Your task to perform on an android device: Go to ESPN.com Image 0: 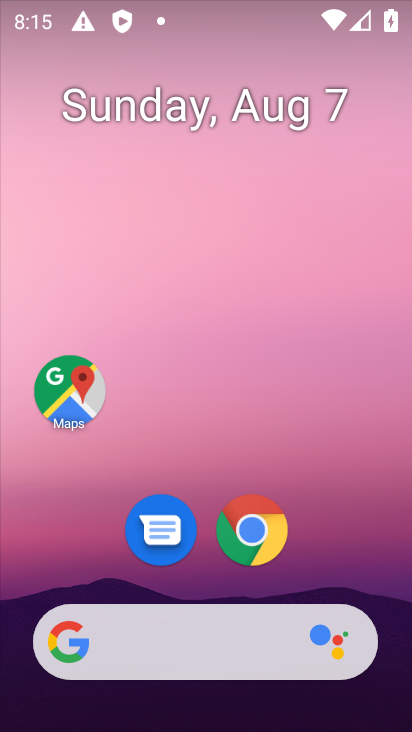
Step 0: click (280, 549)
Your task to perform on an android device: Go to ESPN.com Image 1: 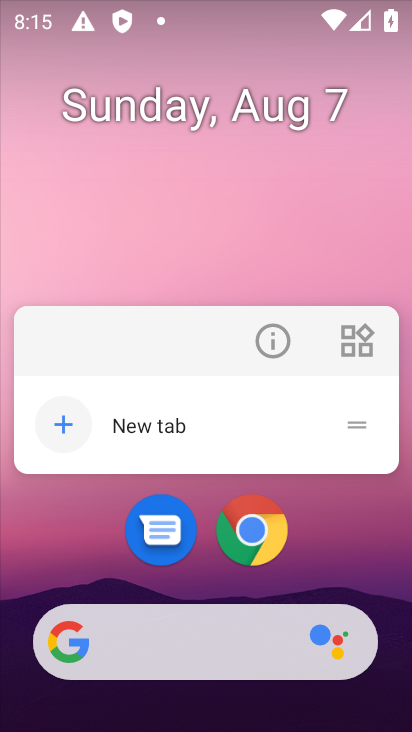
Step 1: click (267, 538)
Your task to perform on an android device: Go to ESPN.com Image 2: 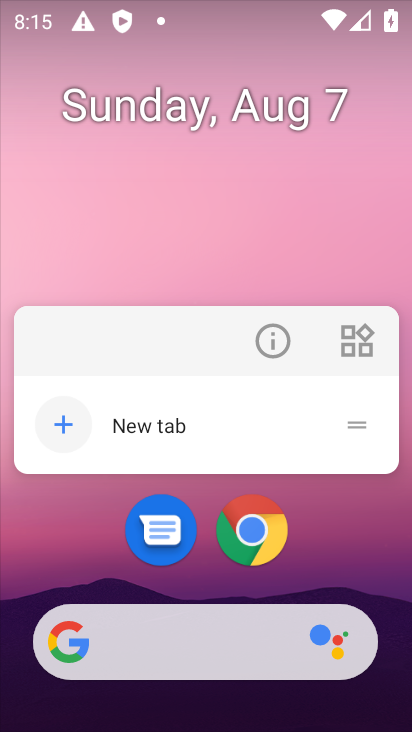
Step 2: click (267, 538)
Your task to perform on an android device: Go to ESPN.com Image 3: 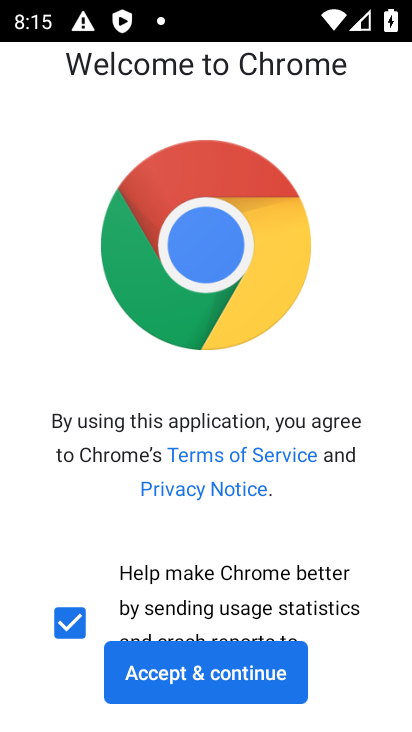
Step 3: click (201, 676)
Your task to perform on an android device: Go to ESPN.com Image 4: 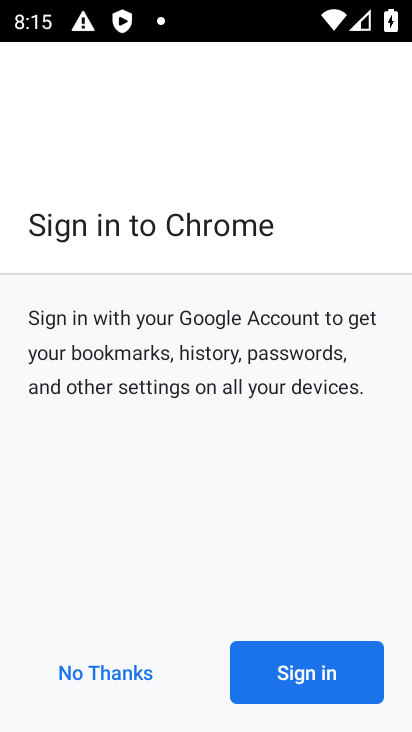
Step 4: click (93, 679)
Your task to perform on an android device: Go to ESPN.com Image 5: 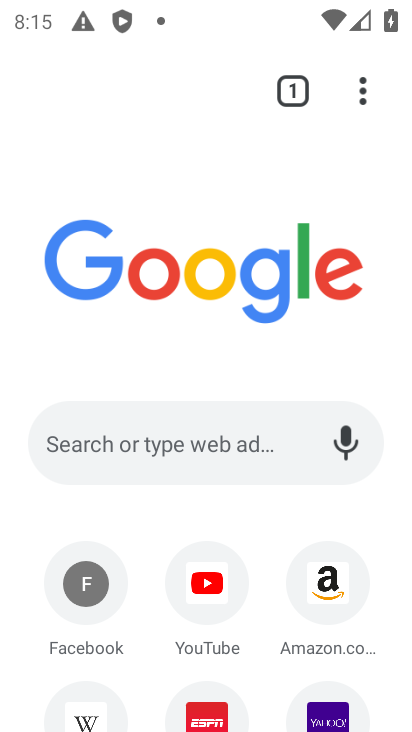
Step 5: drag from (223, 538) to (249, 348)
Your task to perform on an android device: Go to ESPN.com Image 6: 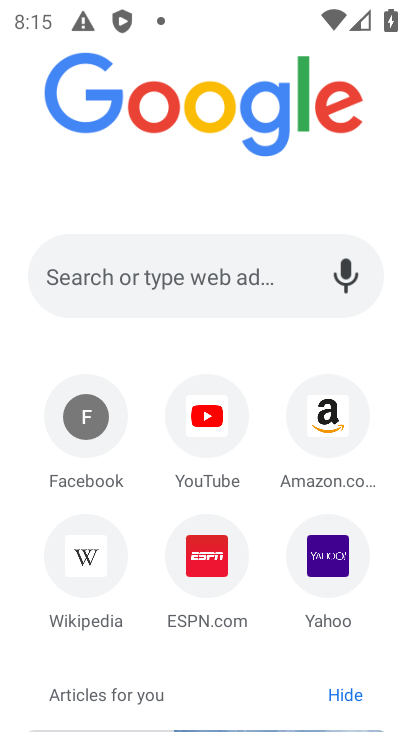
Step 6: click (205, 575)
Your task to perform on an android device: Go to ESPN.com Image 7: 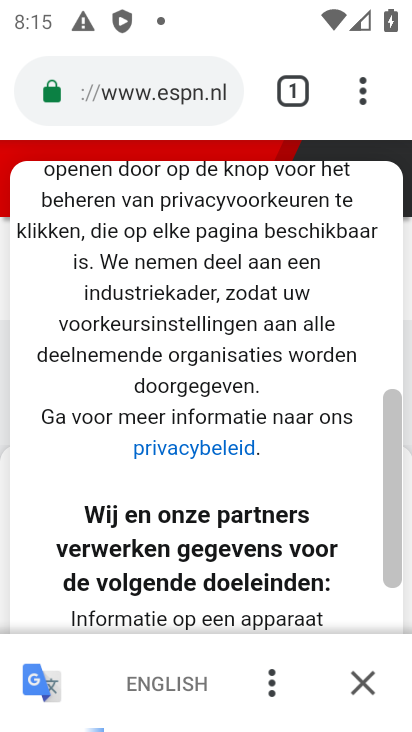
Step 7: task complete